Your task to perform on an android device: Search for the best rated lawnmower on Lowes.com Image 0: 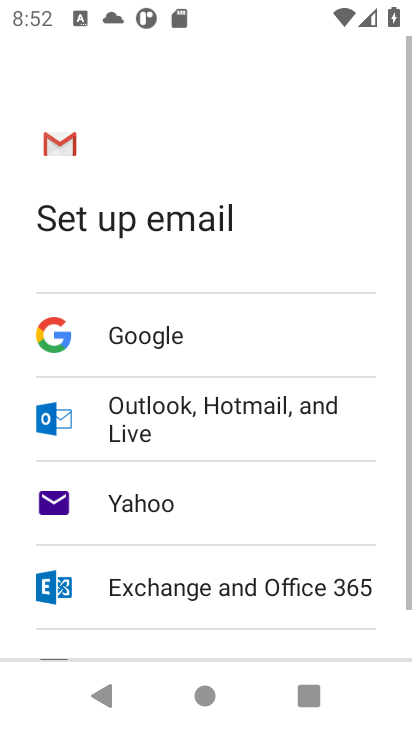
Step 0: press home button
Your task to perform on an android device: Search for the best rated lawnmower on Lowes.com Image 1: 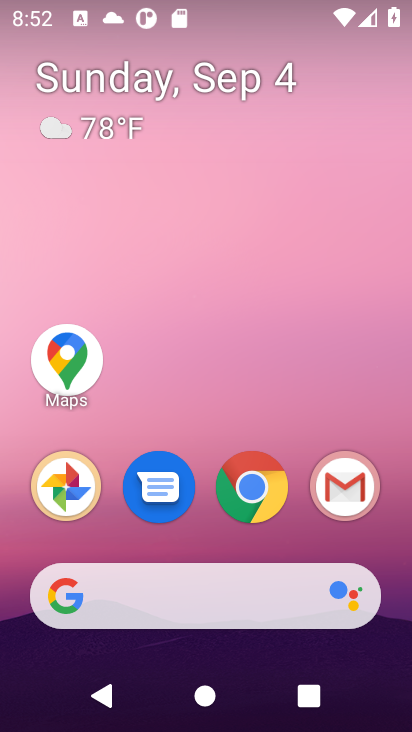
Step 1: click (184, 597)
Your task to perform on an android device: Search for the best rated lawnmower on Lowes.com Image 2: 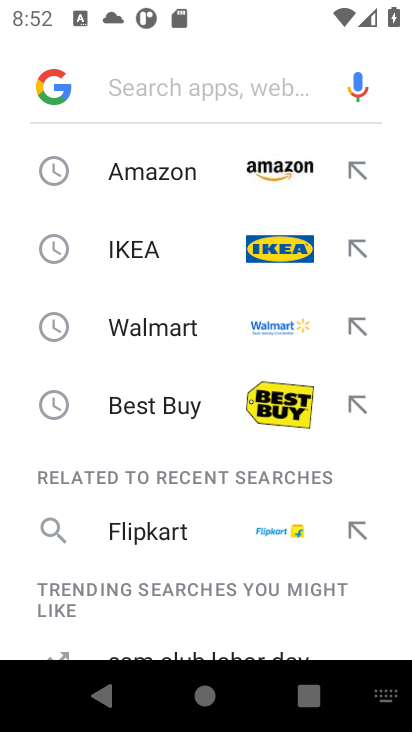
Step 2: type "Lowes.com"
Your task to perform on an android device: Search for the best rated lawnmower on Lowes.com Image 3: 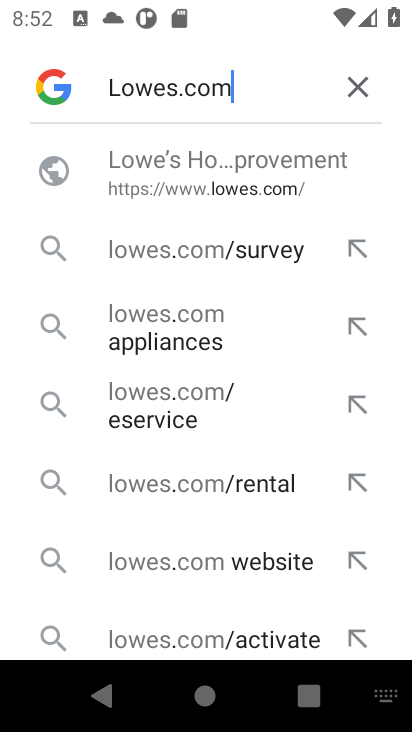
Step 3: click (240, 170)
Your task to perform on an android device: Search for the best rated lawnmower on Lowes.com Image 4: 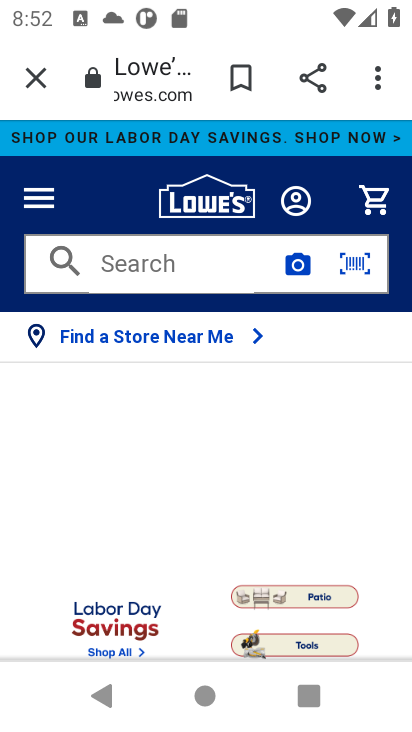
Step 4: click (169, 255)
Your task to perform on an android device: Search for the best rated lawnmower on Lowes.com Image 5: 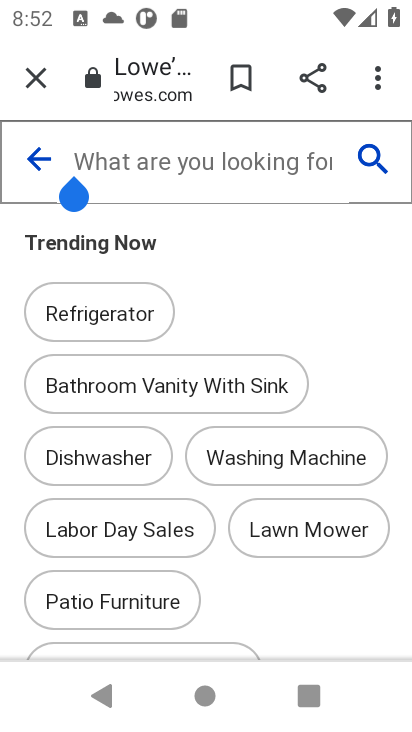
Step 5: type "best rated lawnmower"
Your task to perform on an android device: Search for the best rated lawnmower on Lowes.com Image 6: 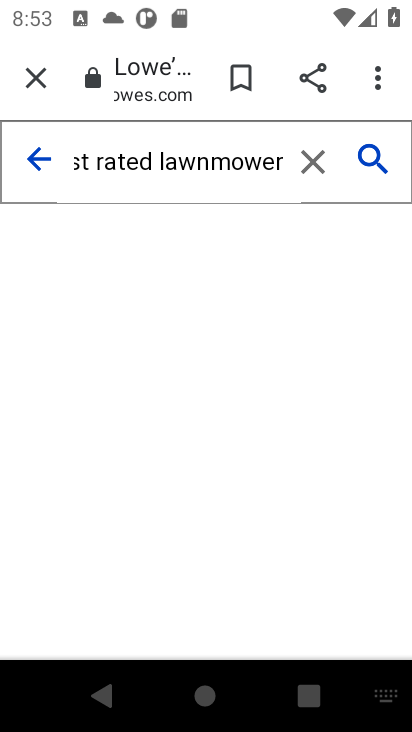
Step 6: click (324, 153)
Your task to perform on an android device: Search for the best rated lawnmower on Lowes.com Image 7: 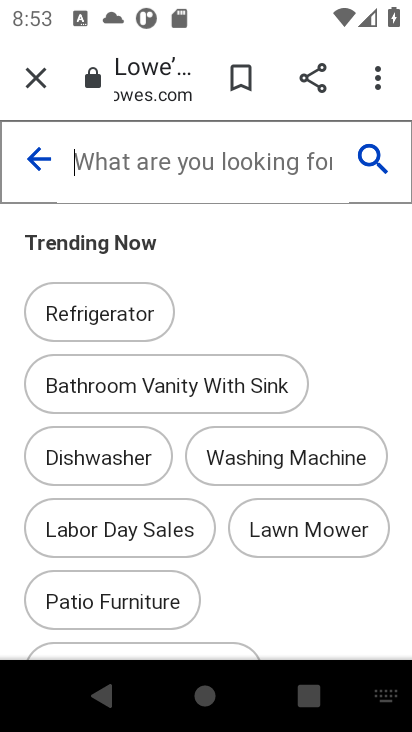
Step 7: type " lawnmower"
Your task to perform on an android device: Search for the best rated lawnmower on Lowes.com Image 8: 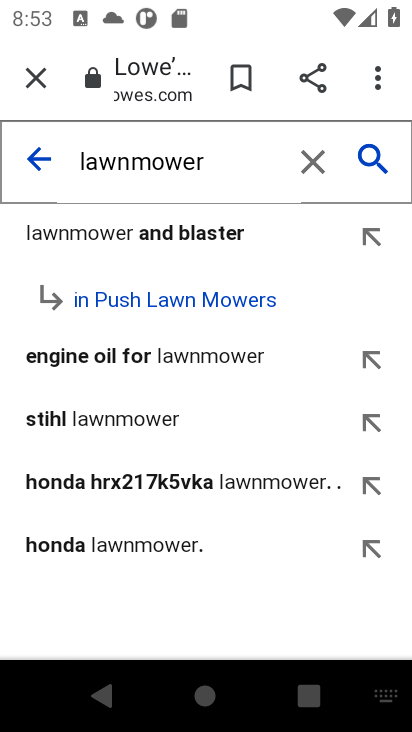
Step 8: click (357, 153)
Your task to perform on an android device: Search for the best rated lawnmower on Lowes.com Image 9: 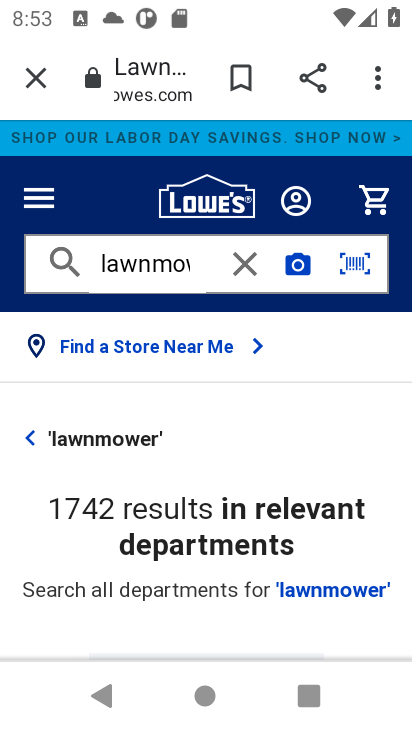
Step 9: task complete